Your task to perform on an android device: Go to CNN.com Image 0: 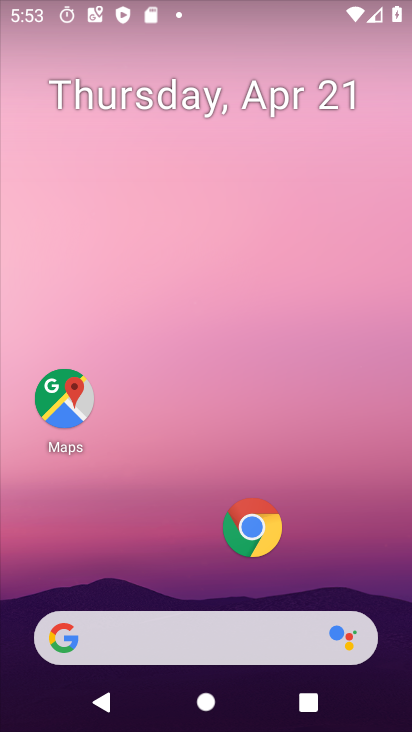
Step 0: click (253, 530)
Your task to perform on an android device: Go to CNN.com Image 1: 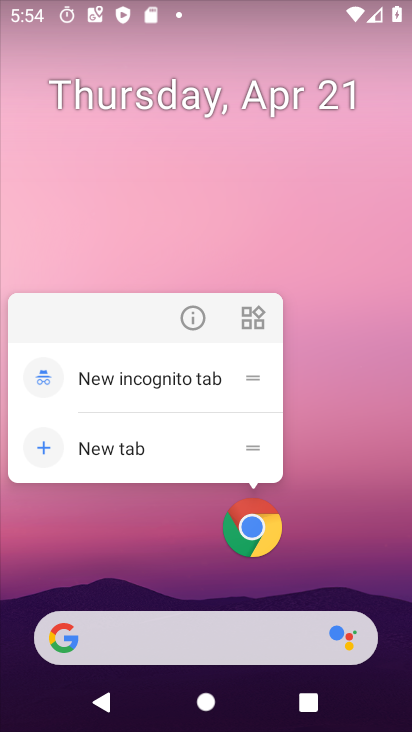
Step 1: click (253, 530)
Your task to perform on an android device: Go to CNN.com Image 2: 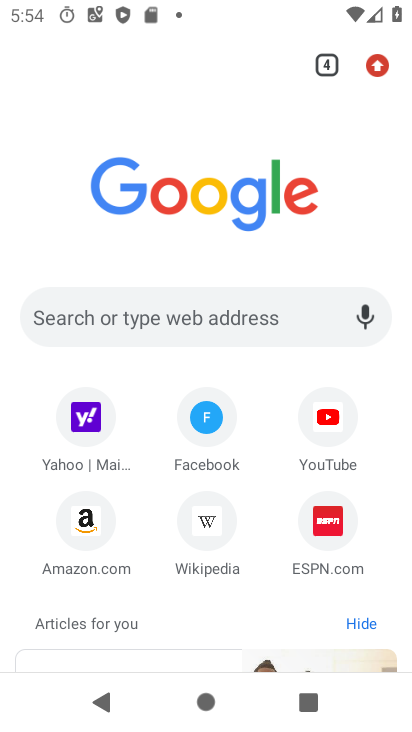
Step 2: click (158, 318)
Your task to perform on an android device: Go to CNN.com Image 3: 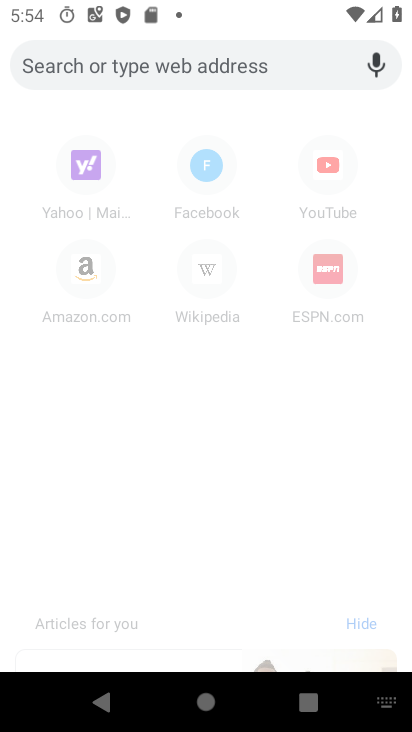
Step 3: type "cnn.com"
Your task to perform on an android device: Go to CNN.com Image 4: 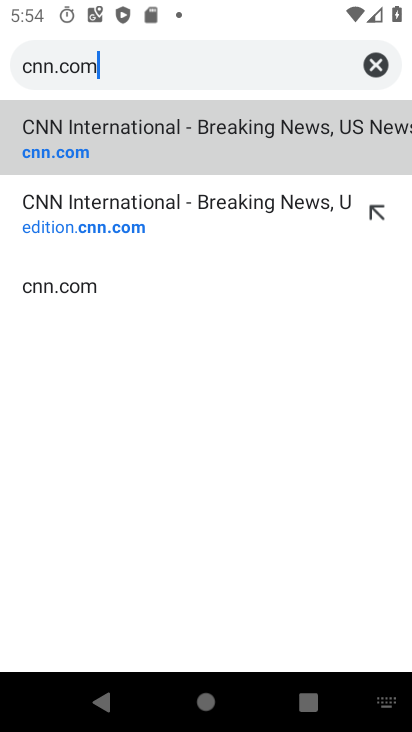
Step 4: click (245, 136)
Your task to perform on an android device: Go to CNN.com Image 5: 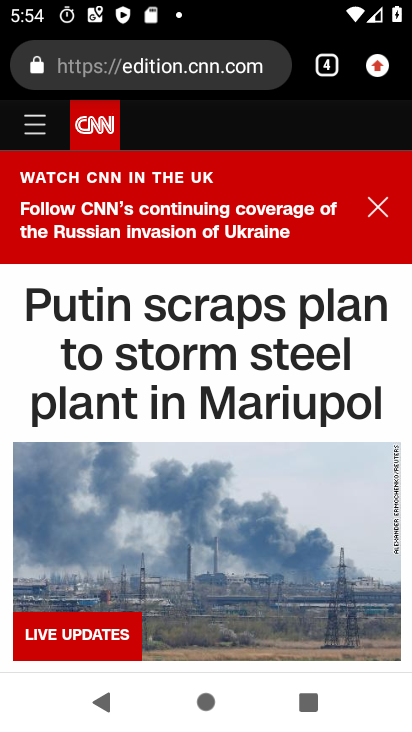
Step 5: task complete